Your task to perform on an android device: Show me popular games on the Play Store Image 0: 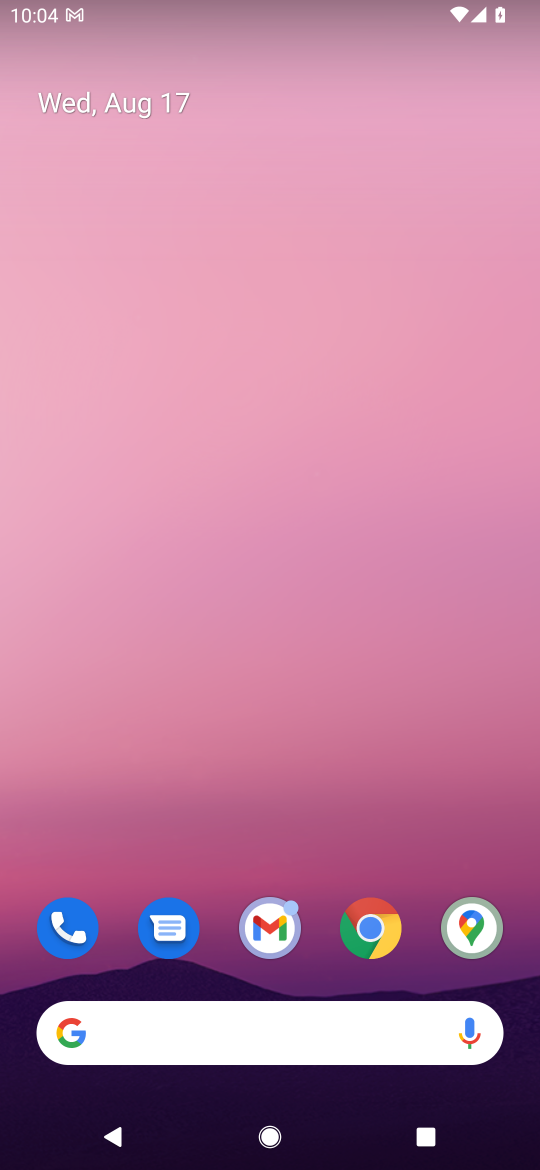
Step 0: drag from (343, 830) to (259, 258)
Your task to perform on an android device: Show me popular games on the Play Store Image 1: 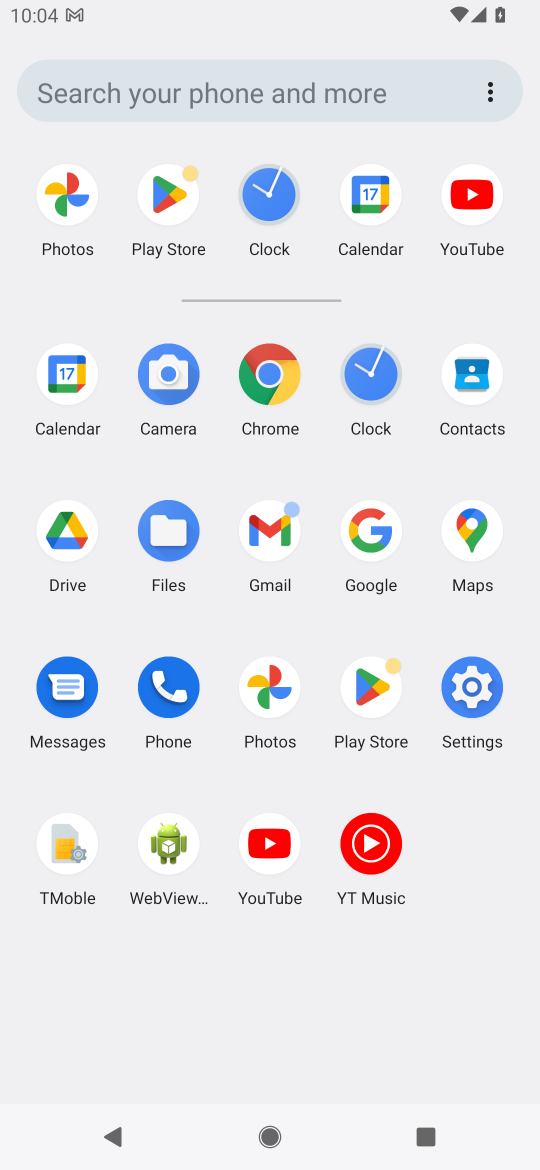
Step 1: click (365, 667)
Your task to perform on an android device: Show me popular games on the Play Store Image 2: 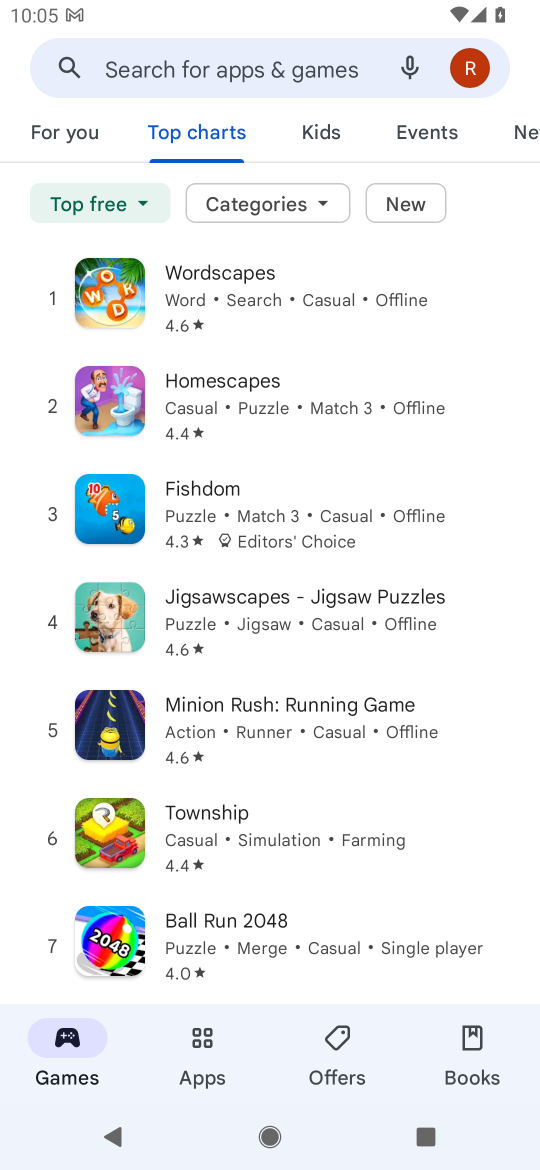
Step 2: task complete